Your task to perform on an android device: Open settings on Google Maps Image 0: 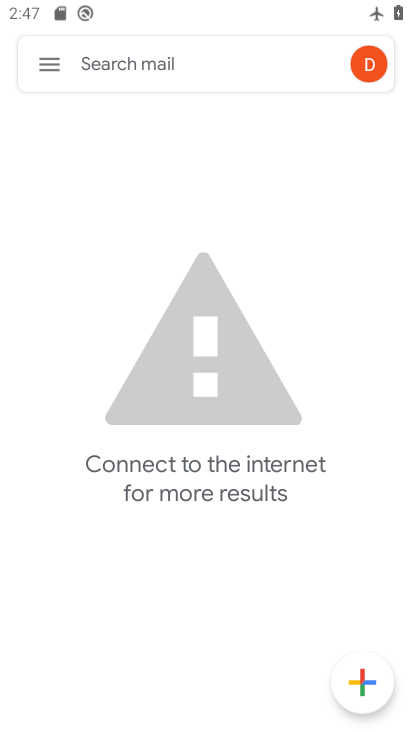
Step 0: press home button
Your task to perform on an android device: Open settings on Google Maps Image 1: 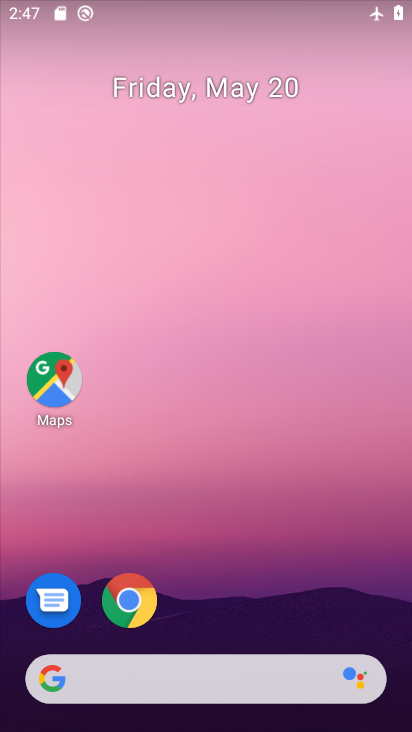
Step 1: click (54, 376)
Your task to perform on an android device: Open settings on Google Maps Image 2: 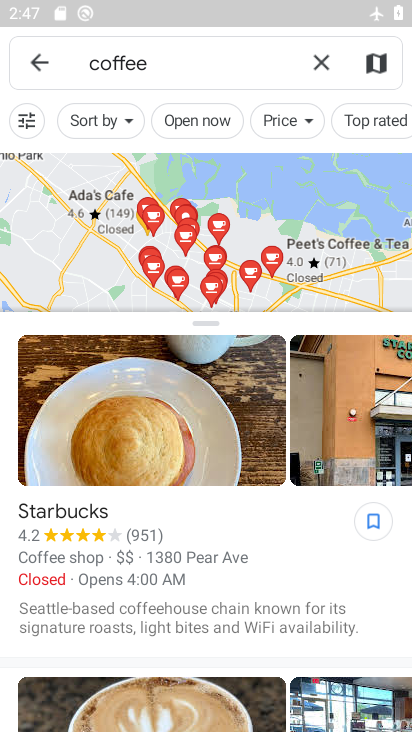
Step 2: click (323, 67)
Your task to perform on an android device: Open settings on Google Maps Image 3: 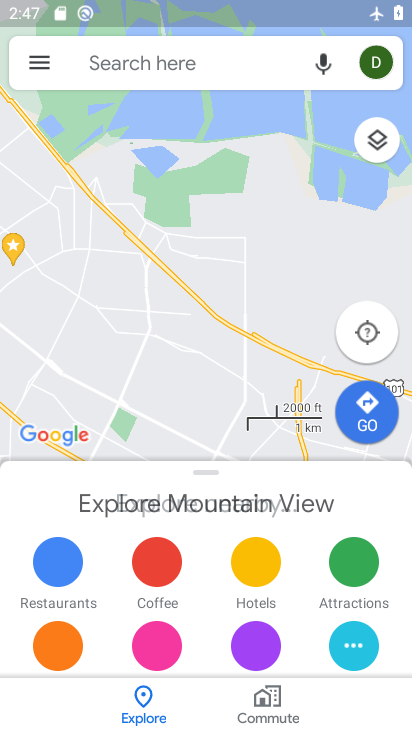
Step 3: click (45, 65)
Your task to perform on an android device: Open settings on Google Maps Image 4: 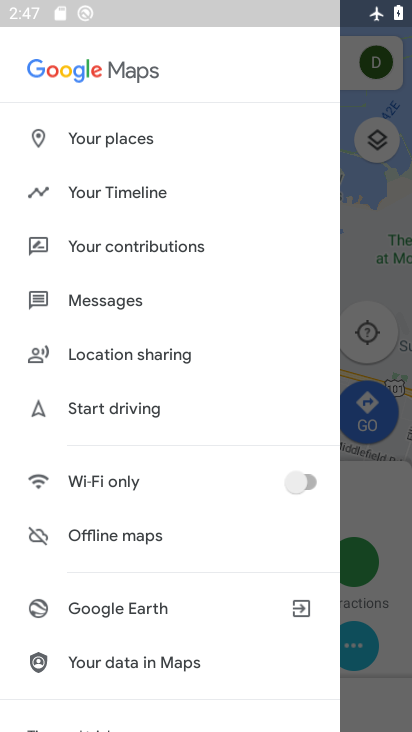
Step 4: drag from (217, 499) to (163, 149)
Your task to perform on an android device: Open settings on Google Maps Image 5: 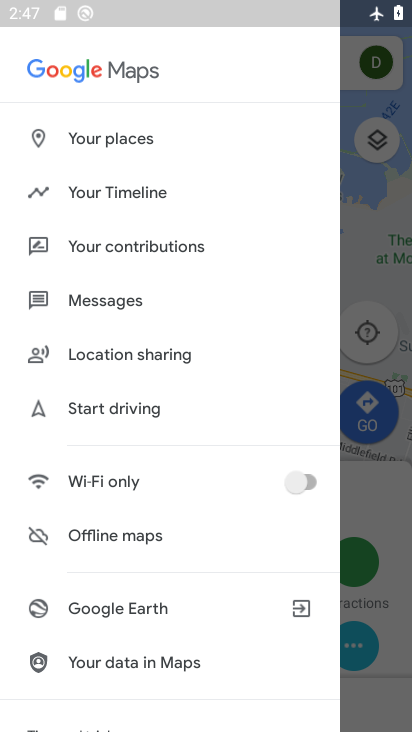
Step 5: drag from (123, 587) to (178, 182)
Your task to perform on an android device: Open settings on Google Maps Image 6: 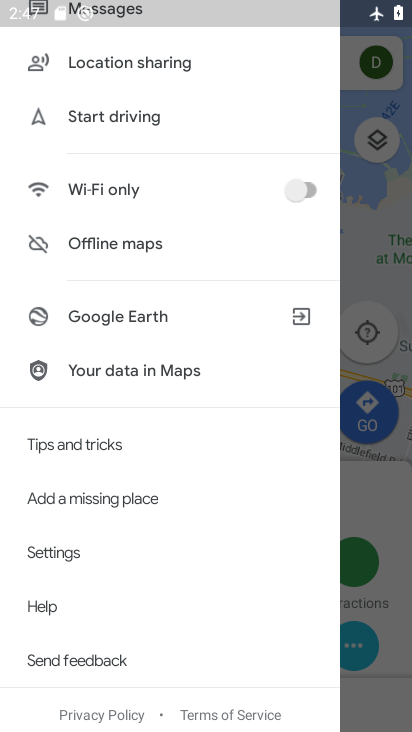
Step 6: click (119, 550)
Your task to perform on an android device: Open settings on Google Maps Image 7: 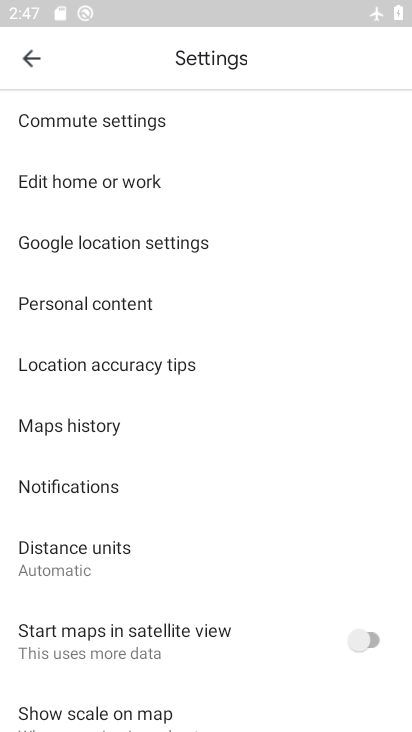
Step 7: task complete